Your task to perform on an android device: open wifi settings Image 0: 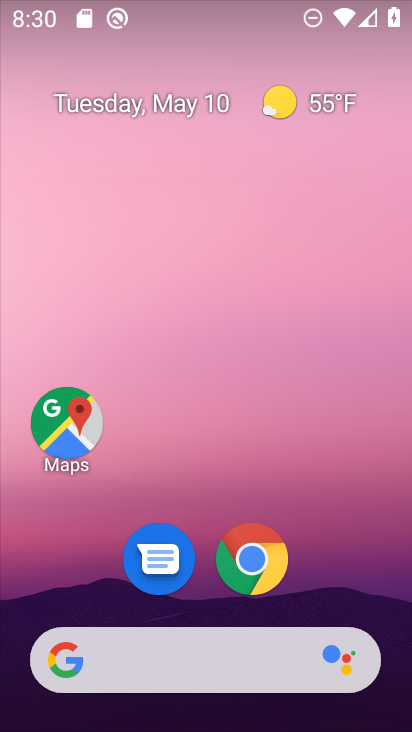
Step 0: drag from (230, 714) to (243, 193)
Your task to perform on an android device: open wifi settings Image 1: 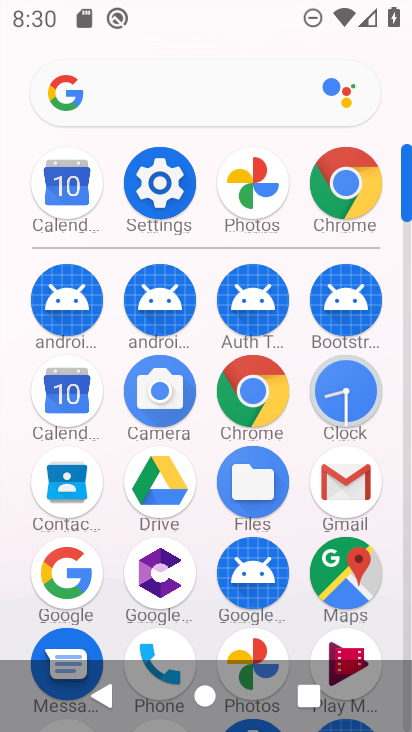
Step 1: click (158, 180)
Your task to perform on an android device: open wifi settings Image 2: 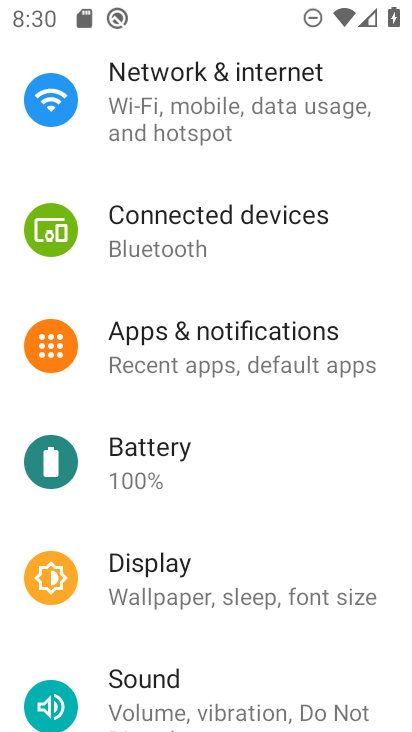
Step 2: drag from (45, 145) to (51, 591)
Your task to perform on an android device: open wifi settings Image 3: 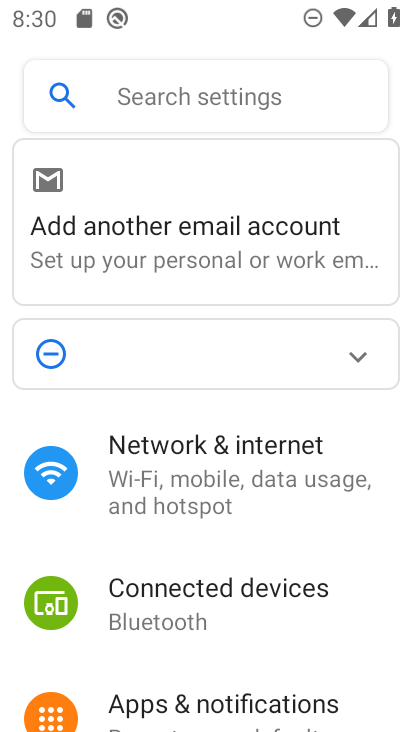
Step 3: click (191, 481)
Your task to perform on an android device: open wifi settings Image 4: 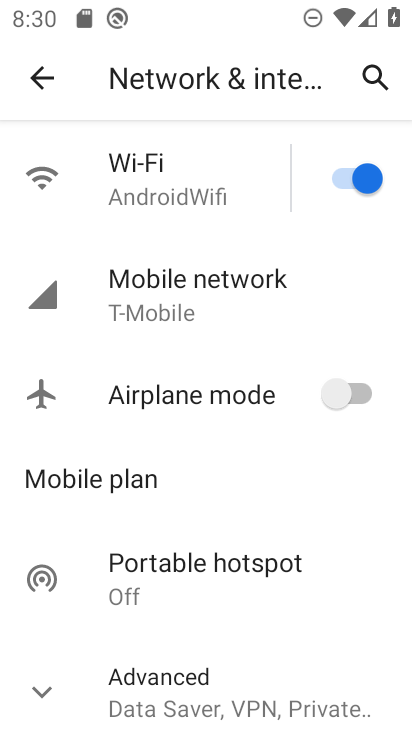
Step 4: click (134, 184)
Your task to perform on an android device: open wifi settings Image 5: 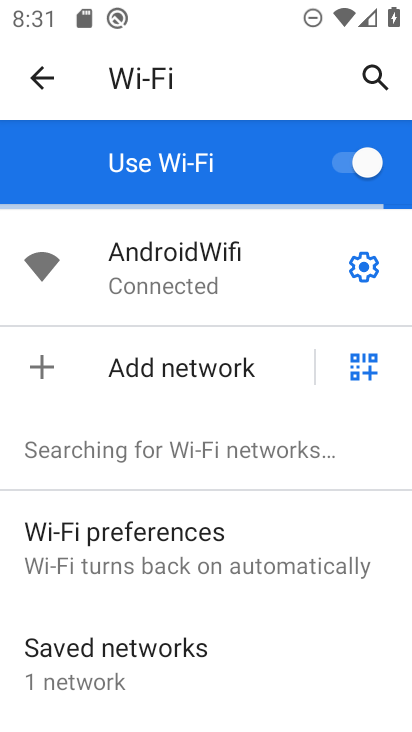
Step 5: task complete